Your task to perform on an android device: Open sound settings Image 0: 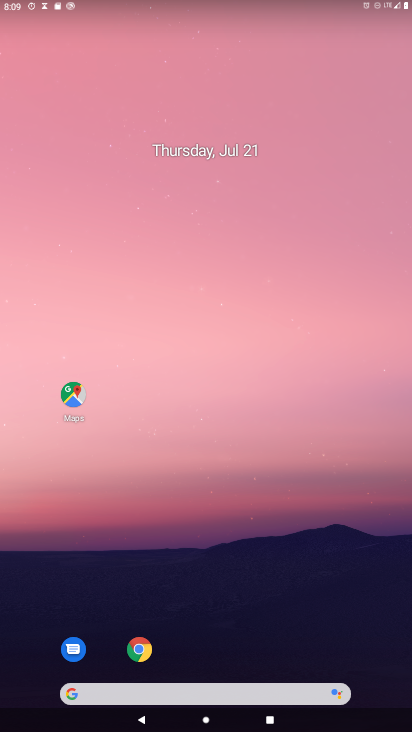
Step 0: drag from (340, 643) to (130, 40)
Your task to perform on an android device: Open sound settings Image 1: 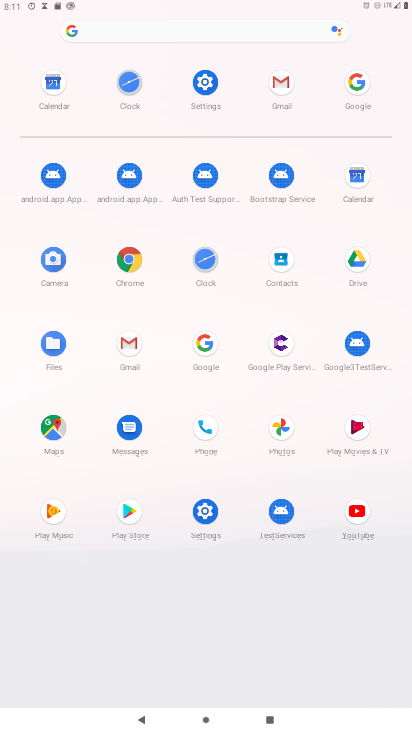
Step 1: click (204, 518)
Your task to perform on an android device: Open sound settings Image 2: 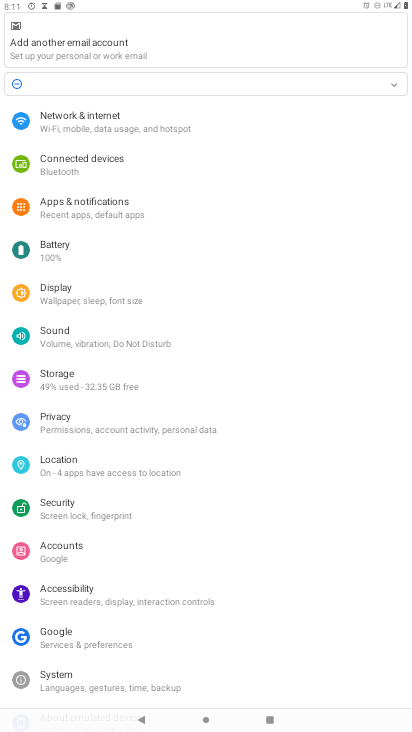
Step 2: click (45, 343)
Your task to perform on an android device: Open sound settings Image 3: 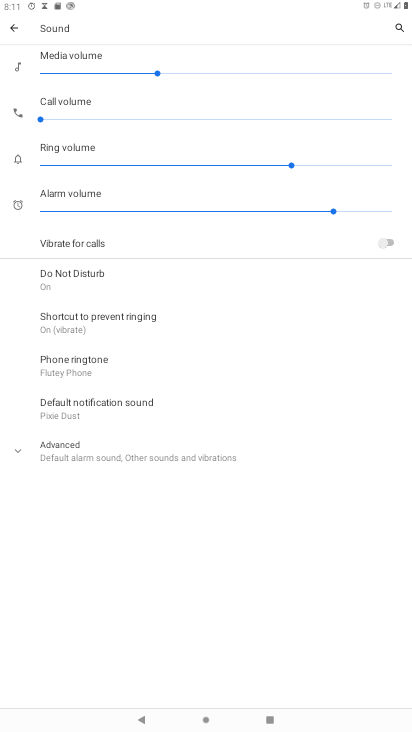
Step 3: task complete